Your task to perform on an android device: check google app version Image 0: 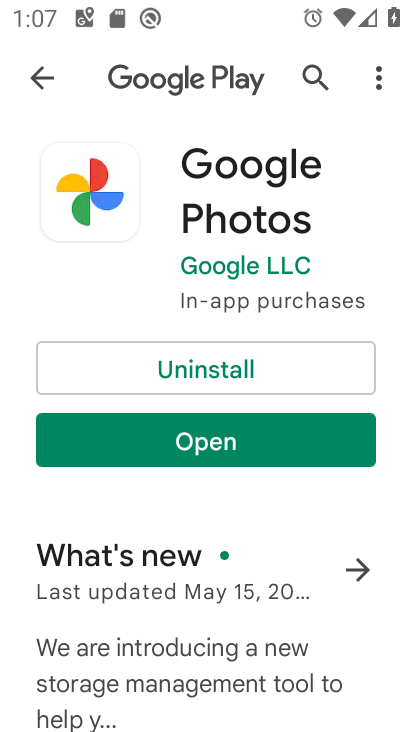
Step 0: press home button
Your task to perform on an android device: check google app version Image 1: 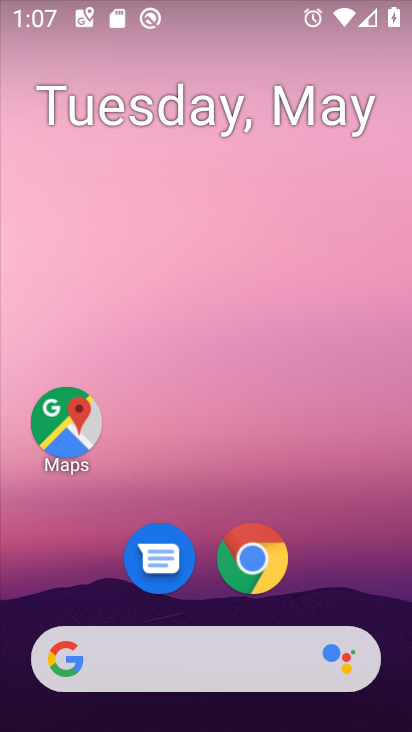
Step 1: drag from (373, 588) to (264, 96)
Your task to perform on an android device: check google app version Image 2: 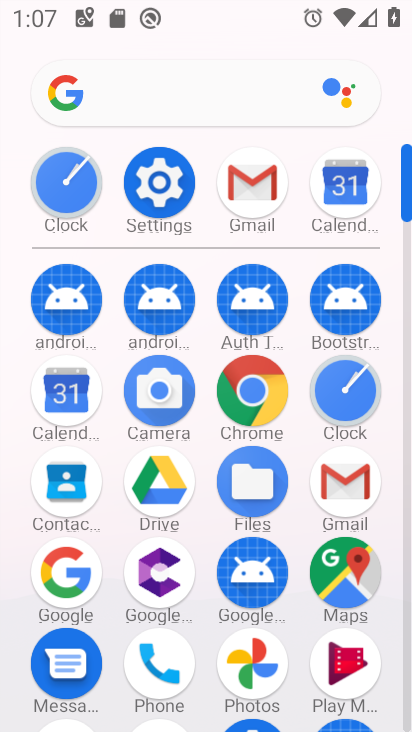
Step 2: click (259, 383)
Your task to perform on an android device: check google app version Image 3: 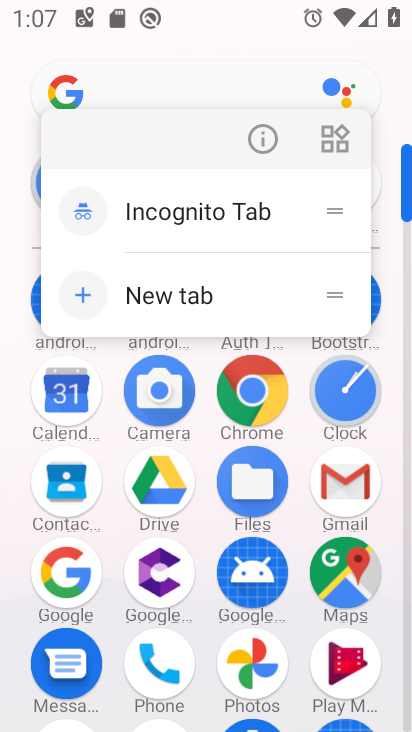
Step 3: click (259, 379)
Your task to perform on an android device: check google app version Image 4: 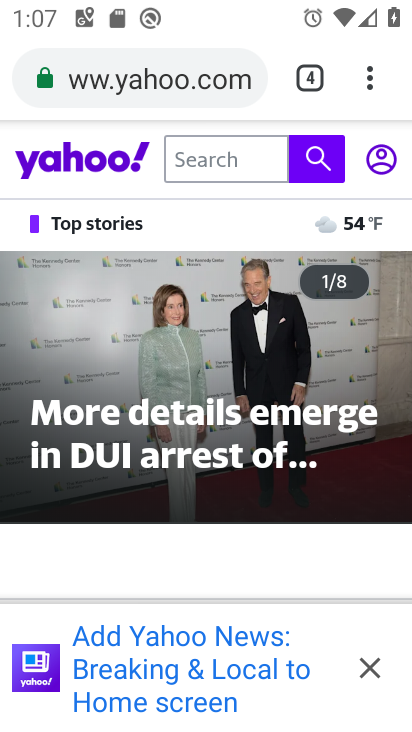
Step 4: click (377, 88)
Your task to perform on an android device: check google app version Image 5: 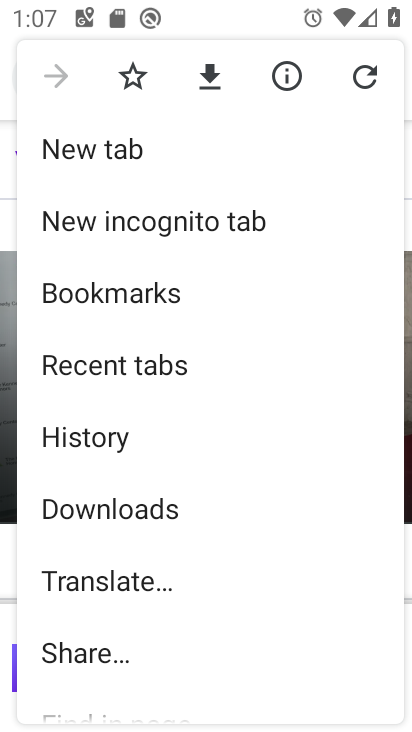
Step 5: drag from (291, 637) to (218, 68)
Your task to perform on an android device: check google app version Image 6: 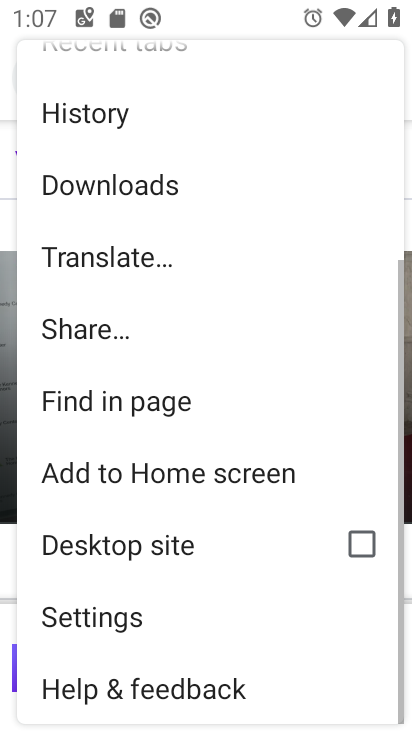
Step 6: click (247, 681)
Your task to perform on an android device: check google app version Image 7: 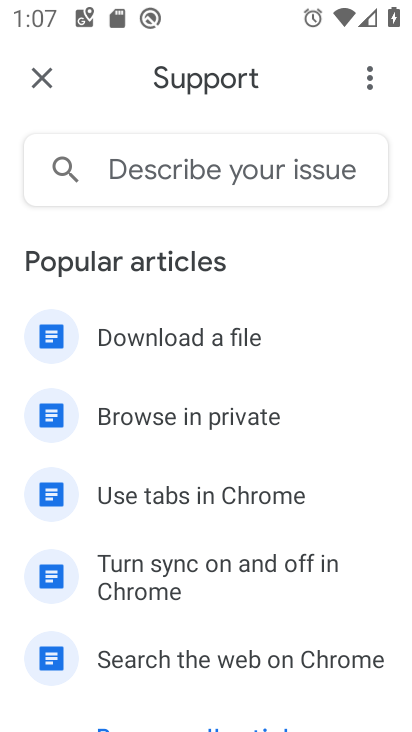
Step 7: click (365, 67)
Your task to perform on an android device: check google app version Image 8: 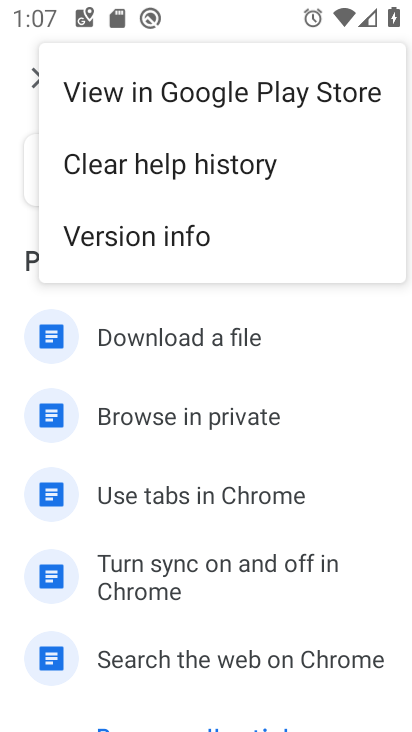
Step 8: click (228, 256)
Your task to perform on an android device: check google app version Image 9: 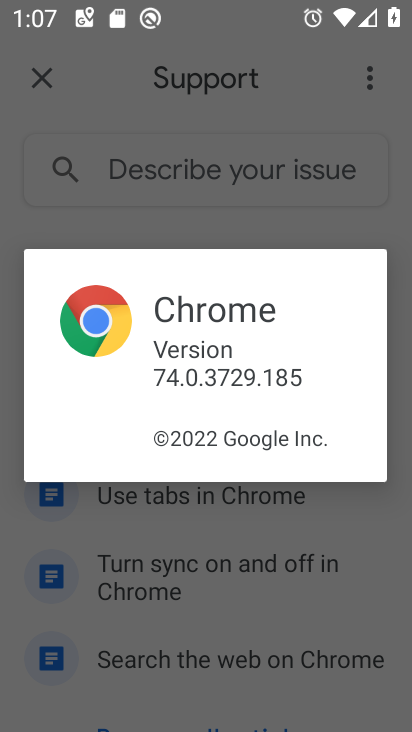
Step 9: task complete